Your task to perform on an android device: Go to CNN.com Image 0: 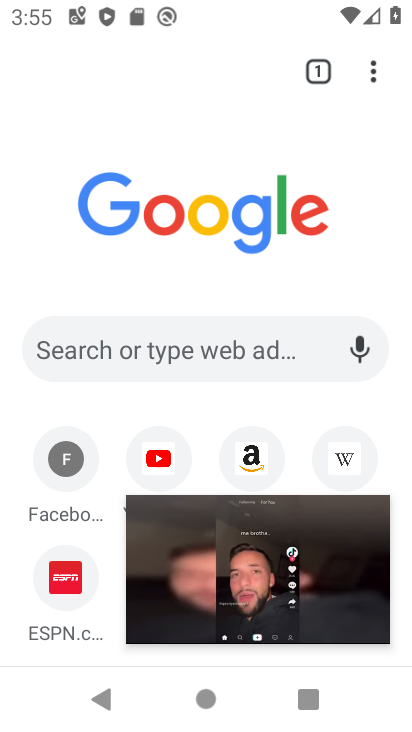
Step 0: click (364, 517)
Your task to perform on an android device: Go to CNN.com Image 1: 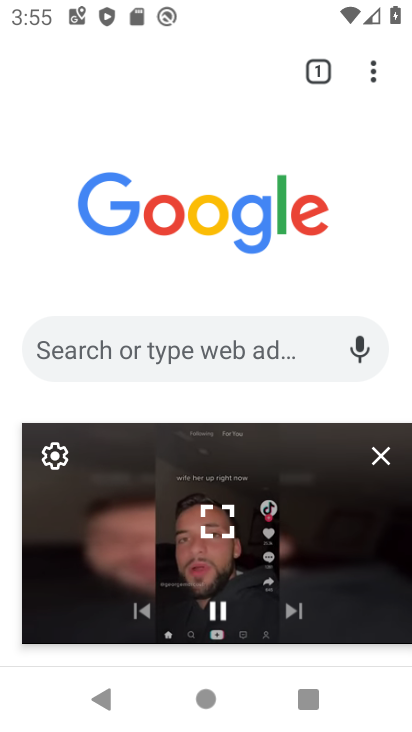
Step 1: click (389, 460)
Your task to perform on an android device: Go to CNN.com Image 2: 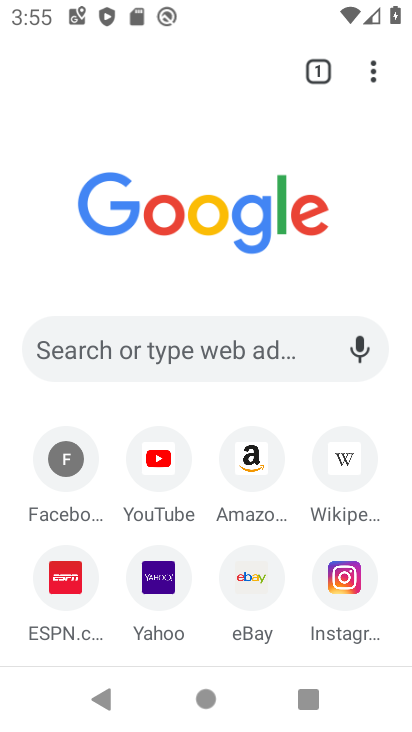
Step 2: click (141, 326)
Your task to perform on an android device: Go to CNN.com Image 3: 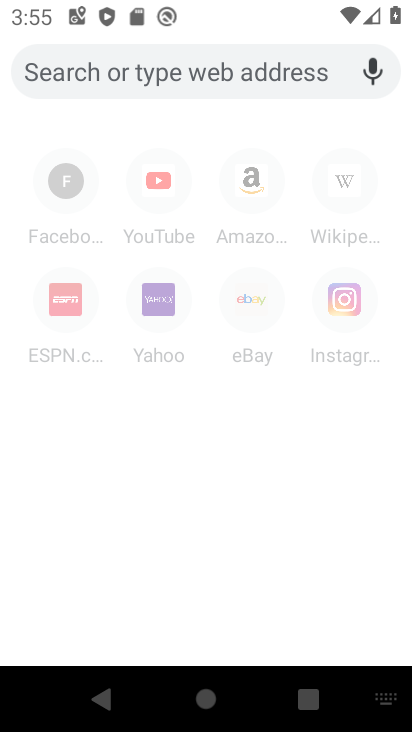
Step 3: type "cnn"
Your task to perform on an android device: Go to CNN.com Image 4: 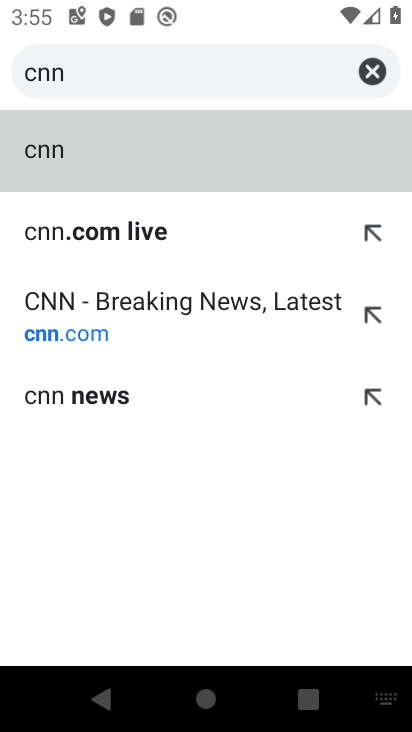
Step 4: click (39, 168)
Your task to perform on an android device: Go to CNN.com Image 5: 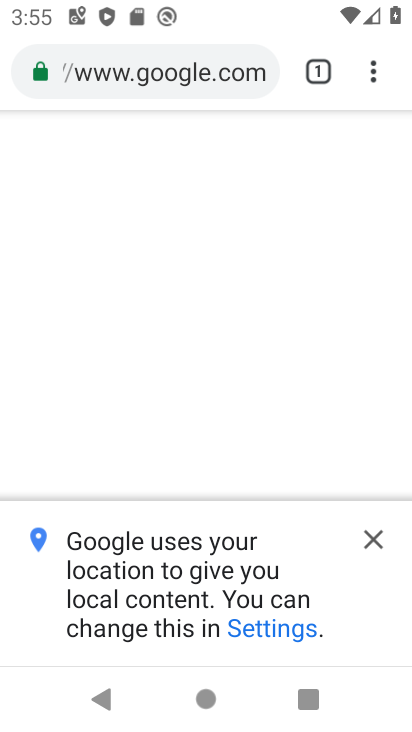
Step 5: click (372, 545)
Your task to perform on an android device: Go to CNN.com Image 6: 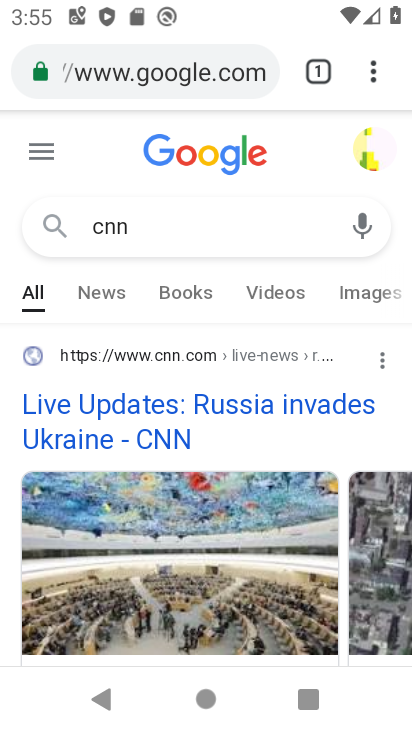
Step 6: drag from (231, 383) to (261, 214)
Your task to perform on an android device: Go to CNN.com Image 7: 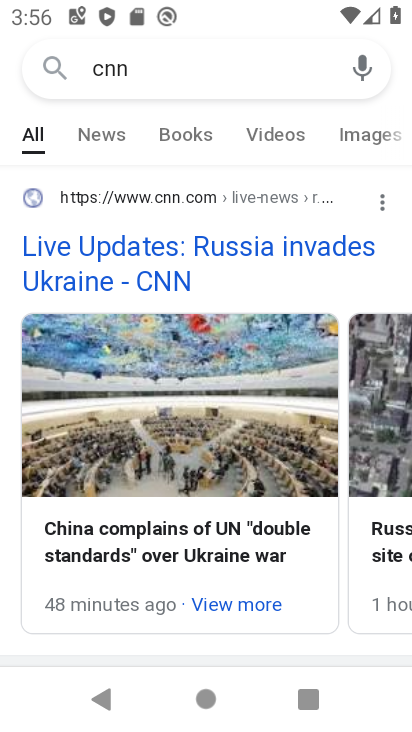
Step 7: click (156, 246)
Your task to perform on an android device: Go to CNN.com Image 8: 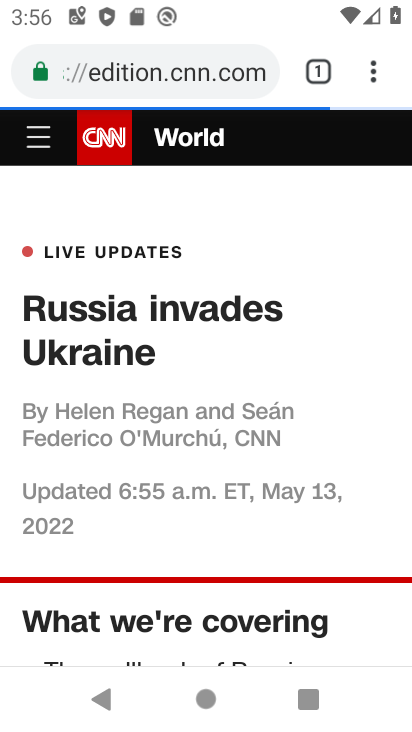
Step 8: task complete